Your task to perform on an android device: star an email in the gmail app Image 0: 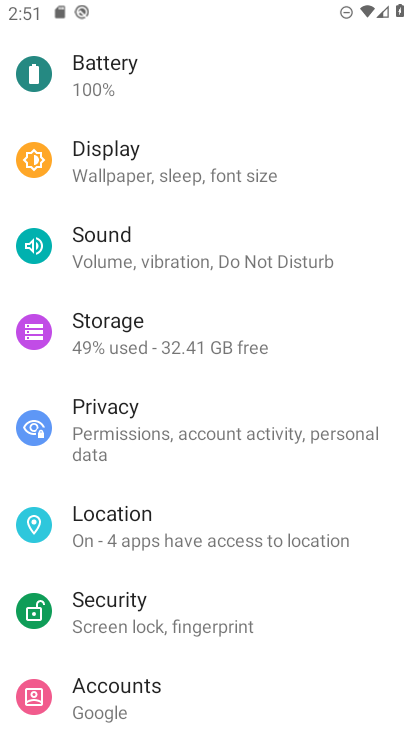
Step 0: press home button
Your task to perform on an android device: star an email in the gmail app Image 1: 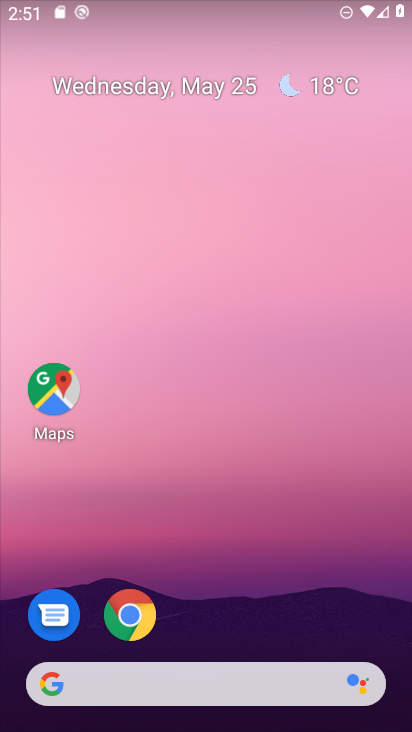
Step 1: drag from (237, 579) to (282, 15)
Your task to perform on an android device: star an email in the gmail app Image 2: 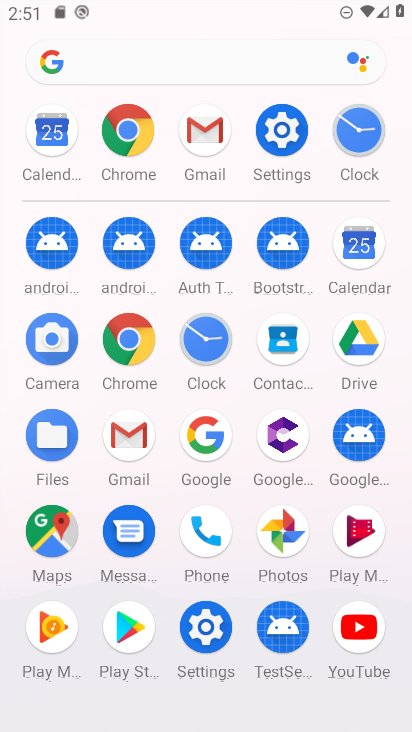
Step 2: click (206, 120)
Your task to perform on an android device: star an email in the gmail app Image 3: 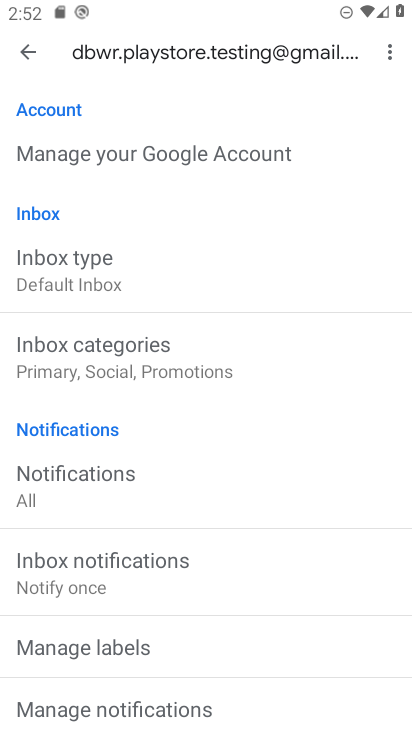
Step 3: click (30, 47)
Your task to perform on an android device: star an email in the gmail app Image 4: 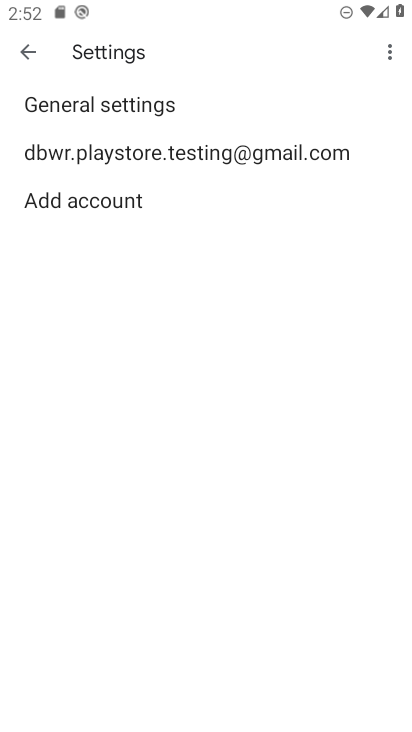
Step 4: click (30, 47)
Your task to perform on an android device: star an email in the gmail app Image 5: 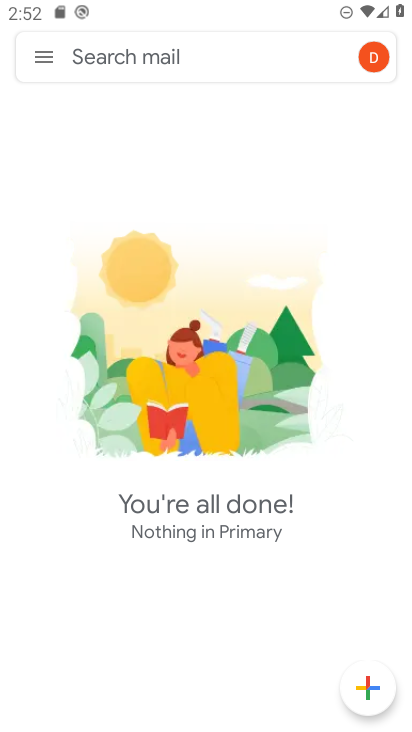
Step 5: click (40, 52)
Your task to perform on an android device: star an email in the gmail app Image 6: 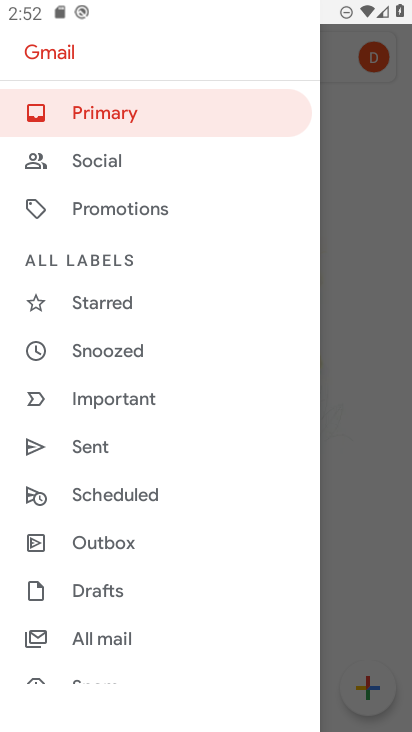
Step 6: click (124, 630)
Your task to perform on an android device: star an email in the gmail app Image 7: 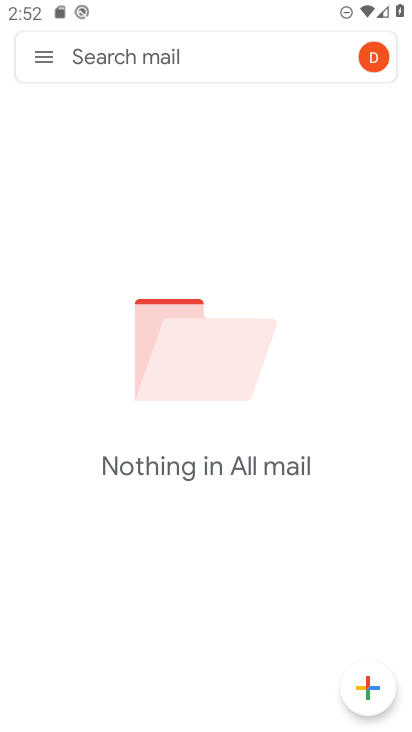
Step 7: task complete